Your task to perform on an android device: search for starred emails in the gmail app Image 0: 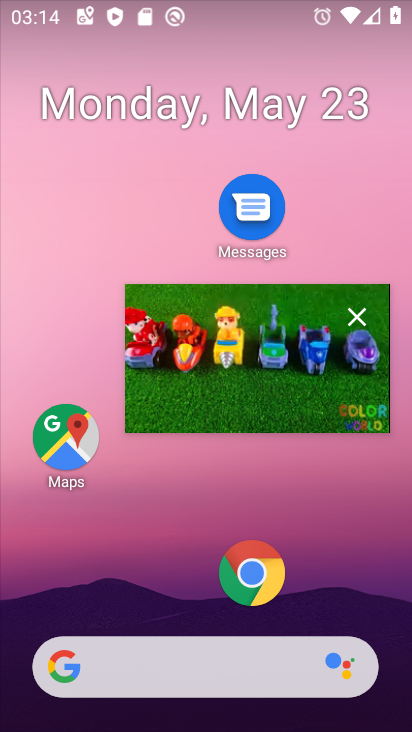
Step 0: click (351, 314)
Your task to perform on an android device: search for starred emails in the gmail app Image 1: 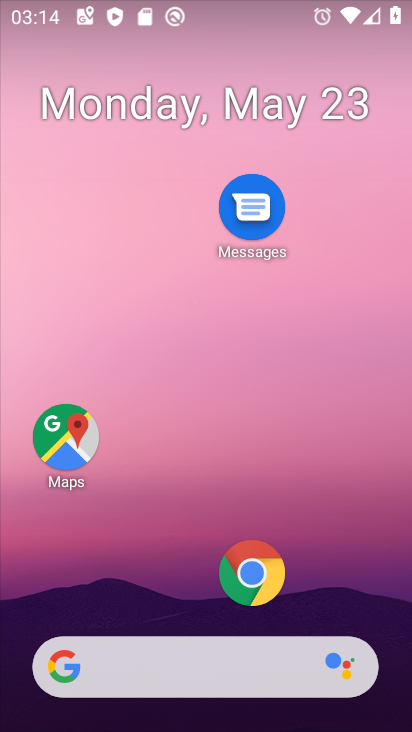
Step 1: drag from (267, 653) to (293, 1)
Your task to perform on an android device: search for starred emails in the gmail app Image 2: 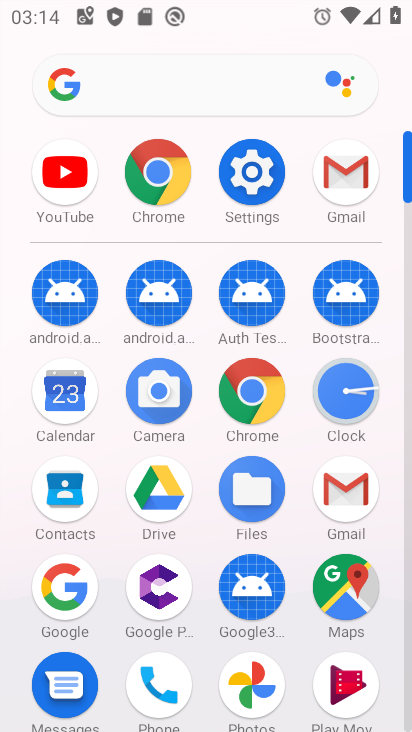
Step 2: click (373, 491)
Your task to perform on an android device: search for starred emails in the gmail app Image 3: 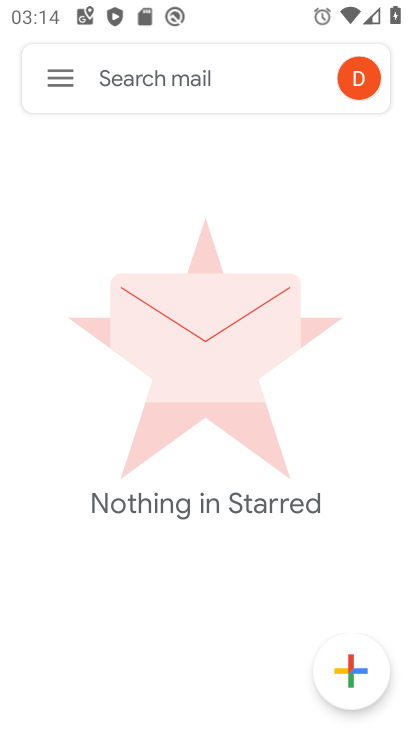
Step 3: click (56, 89)
Your task to perform on an android device: search for starred emails in the gmail app Image 4: 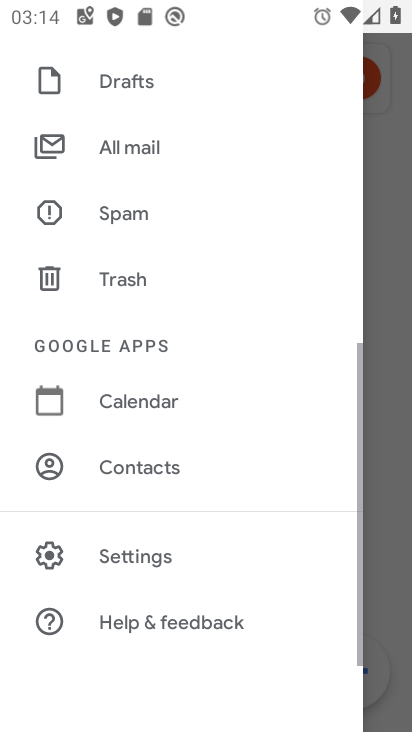
Step 4: drag from (182, 212) to (251, 725)
Your task to perform on an android device: search for starred emails in the gmail app Image 5: 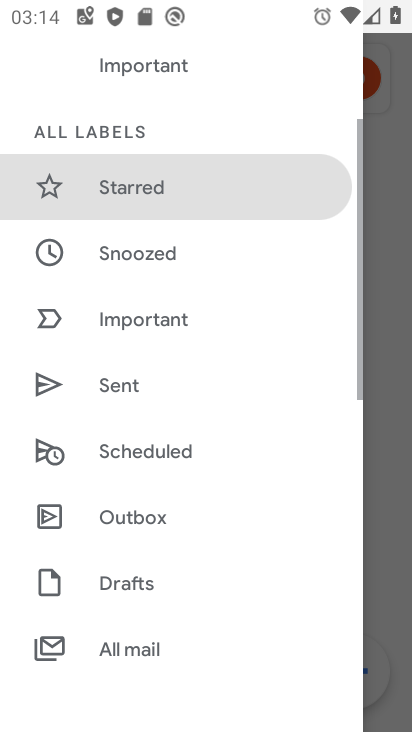
Step 5: drag from (198, 141) to (113, 722)
Your task to perform on an android device: search for starred emails in the gmail app Image 6: 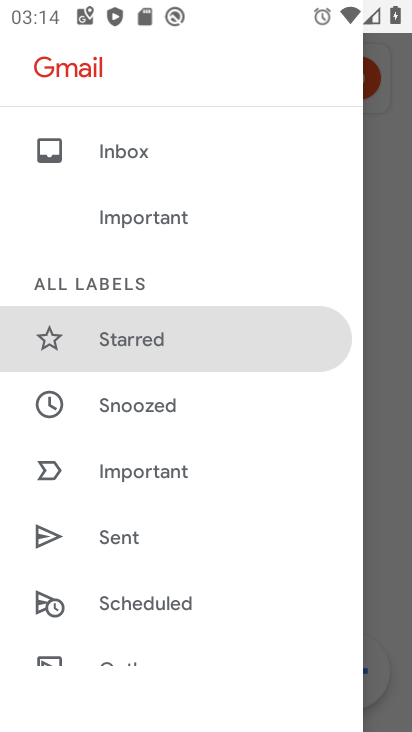
Step 6: click (158, 331)
Your task to perform on an android device: search for starred emails in the gmail app Image 7: 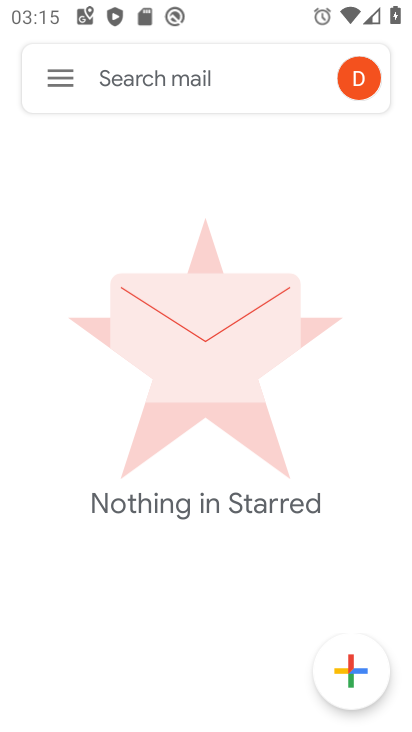
Step 7: task complete